Your task to perform on an android device: turn off wifi Image 0: 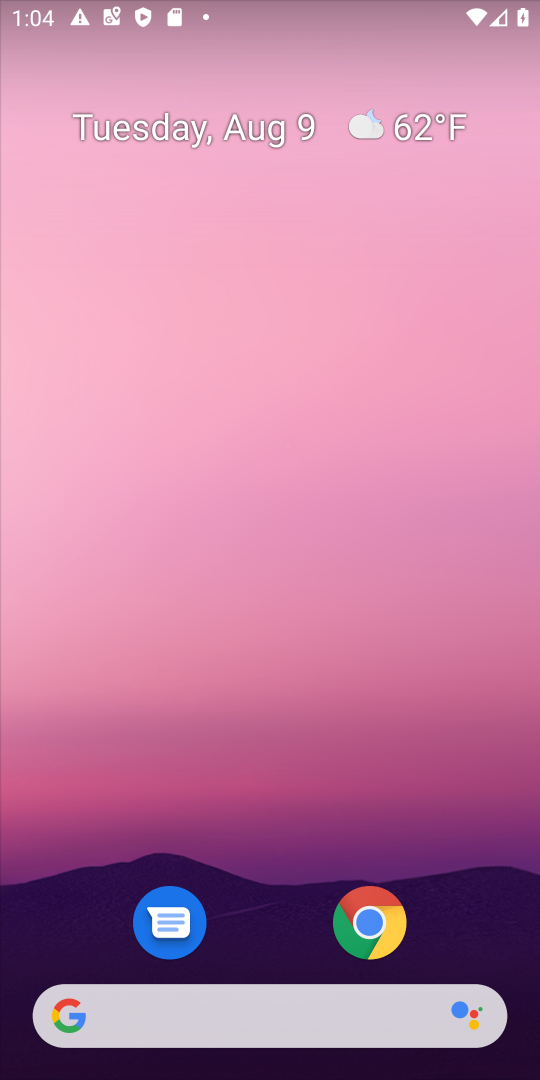
Step 0: drag from (260, 983) to (119, 171)
Your task to perform on an android device: turn off wifi Image 1: 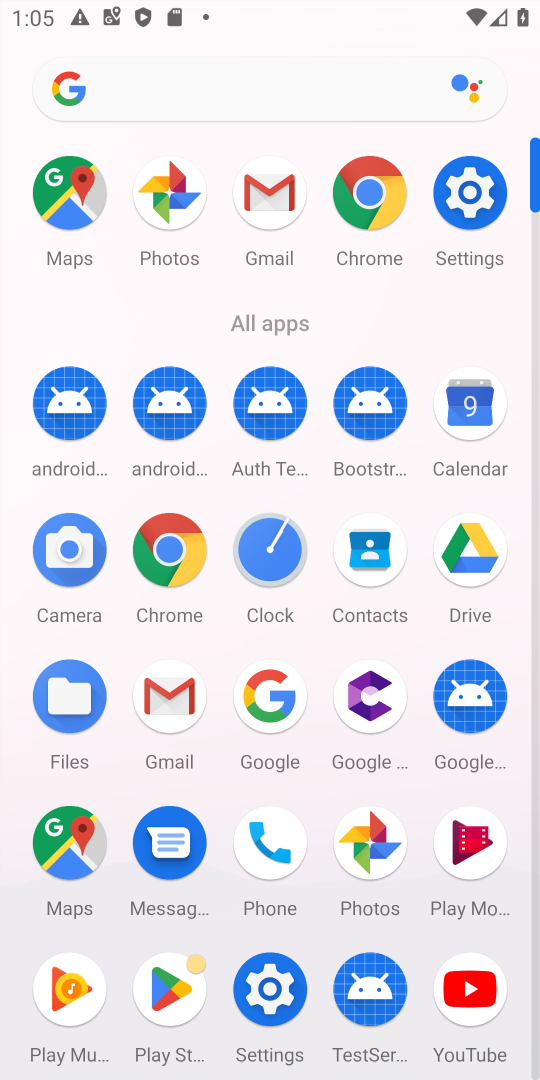
Step 1: click (276, 958)
Your task to perform on an android device: turn off wifi Image 2: 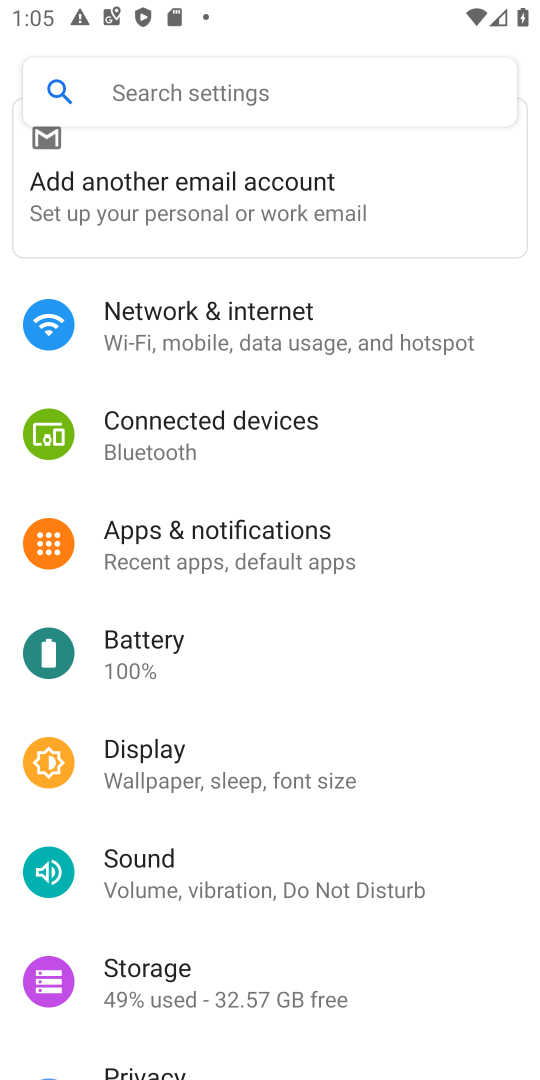
Step 2: click (249, 323)
Your task to perform on an android device: turn off wifi Image 3: 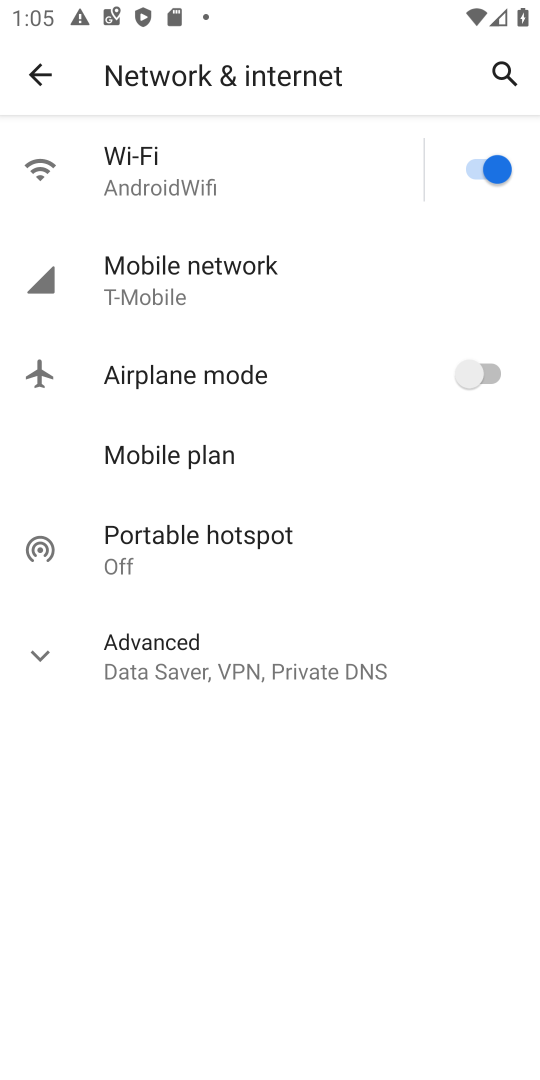
Step 3: click (466, 177)
Your task to perform on an android device: turn off wifi Image 4: 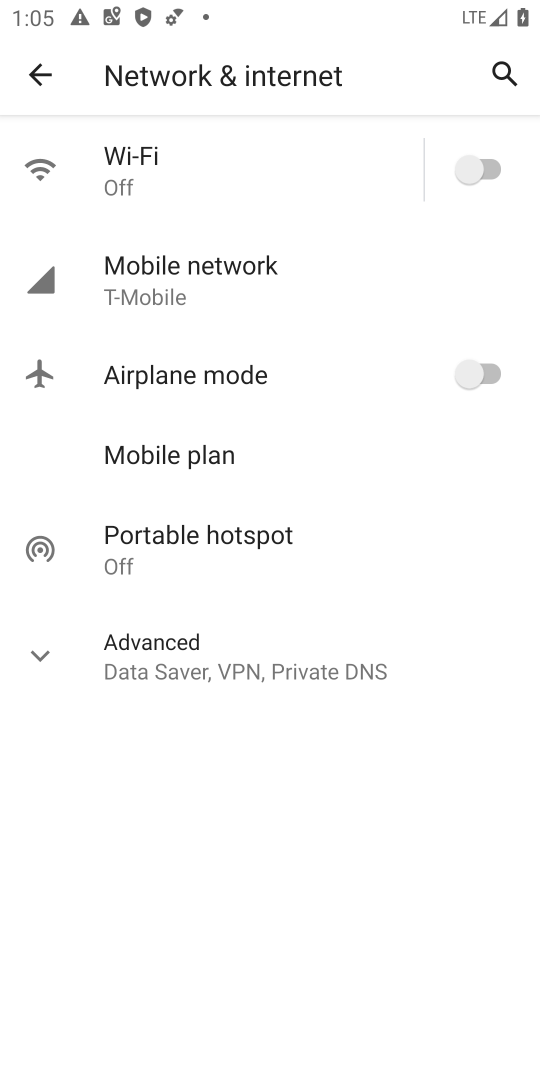
Step 4: task complete